Your task to perform on an android device: change the clock display to show seconds Image 0: 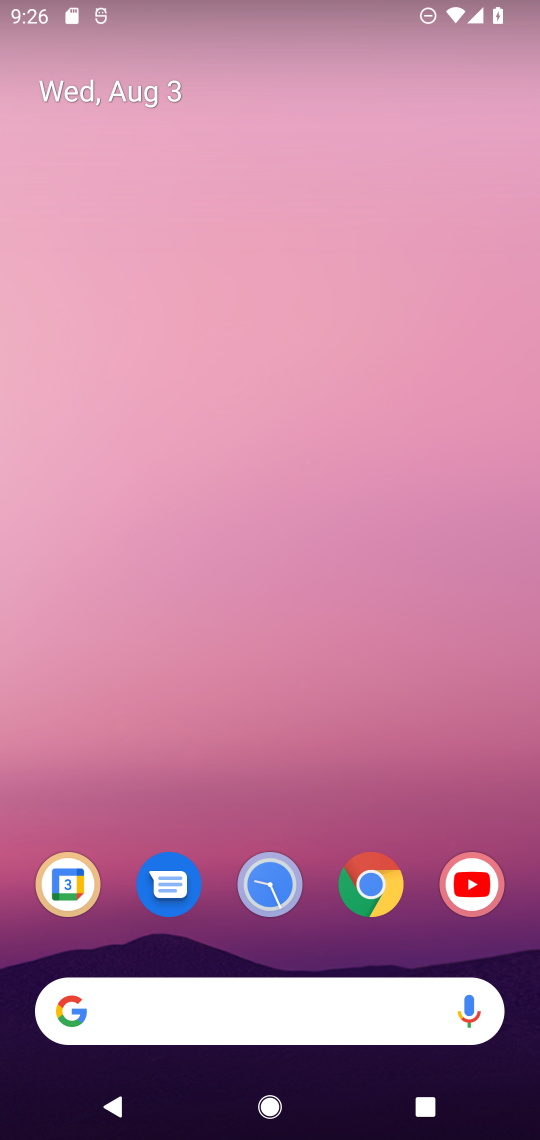
Step 0: click (259, 909)
Your task to perform on an android device: change the clock display to show seconds Image 1: 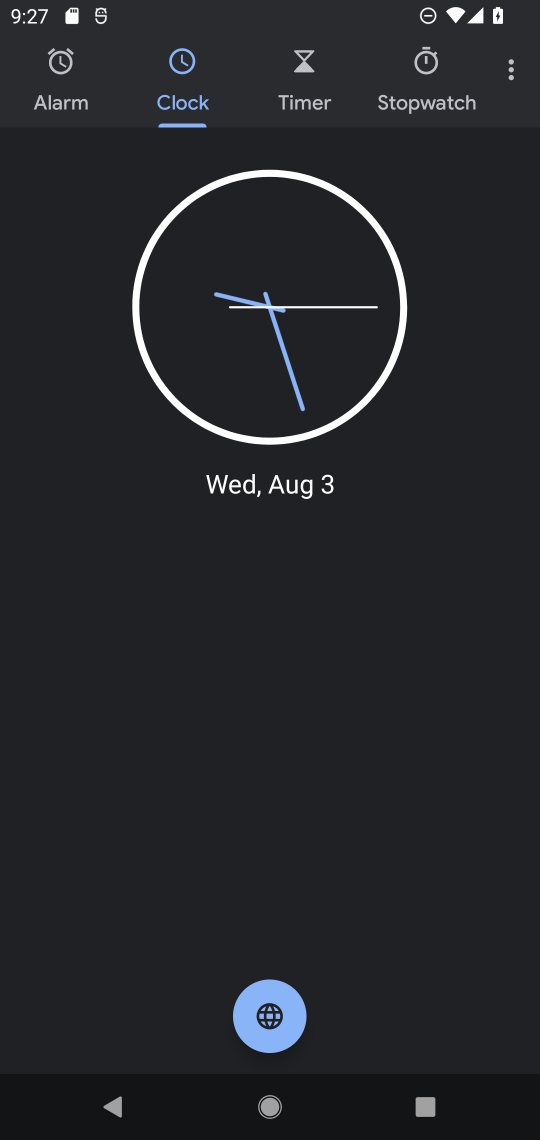
Step 1: click (511, 55)
Your task to perform on an android device: change the clock display to show seconds Image 2: 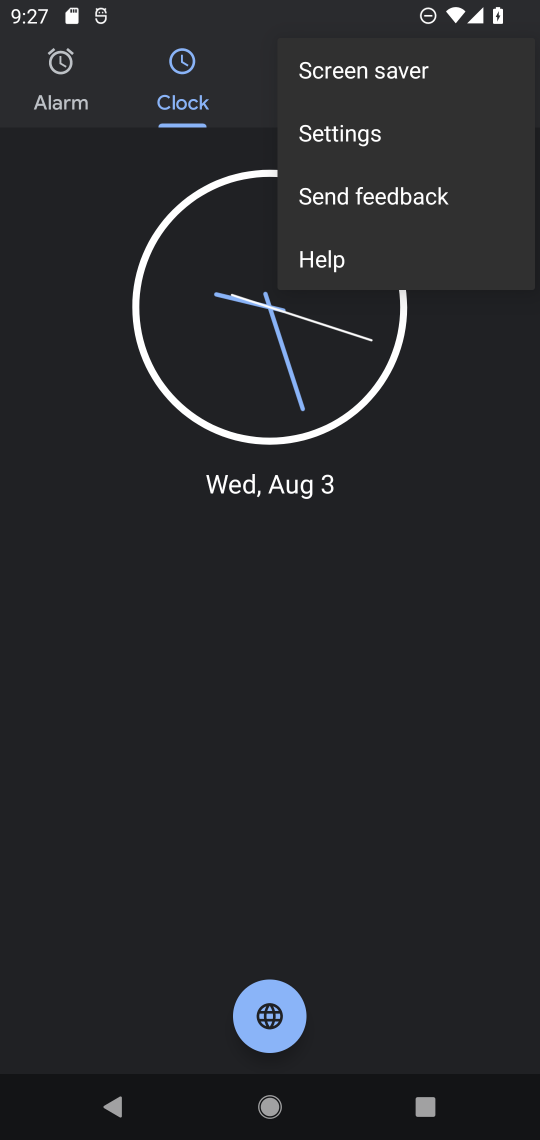
Step 2: click (330, 126)
Your task to perform on an android device: change the clock display to show seconds Image 3: 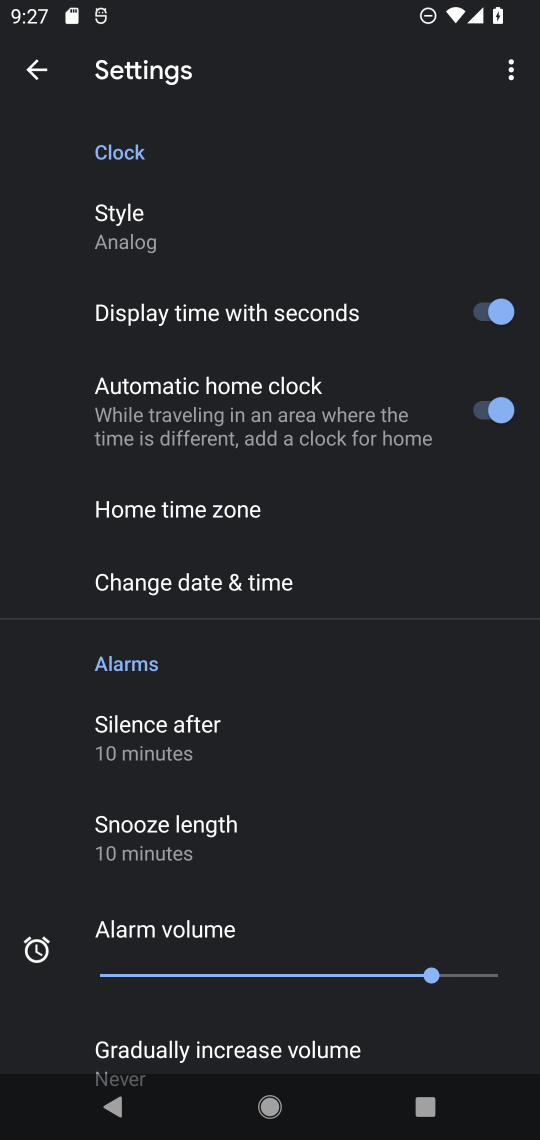
Step 3: task complete